Your task to perform on an android device: Open sound settings Image 0: 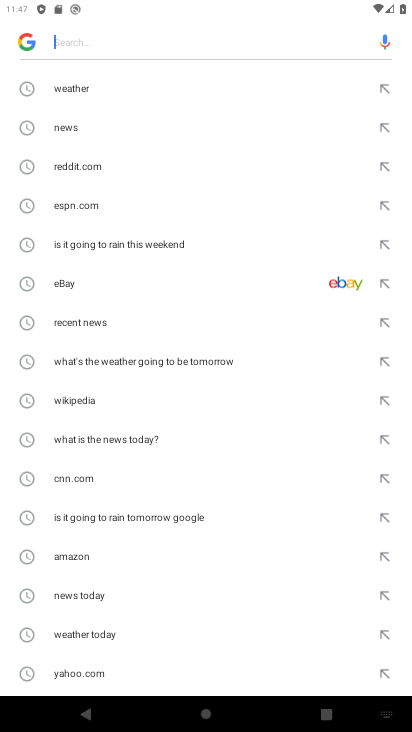
Step 0: press home button
Your task to perform on an android device: Open sound settings Image 1: 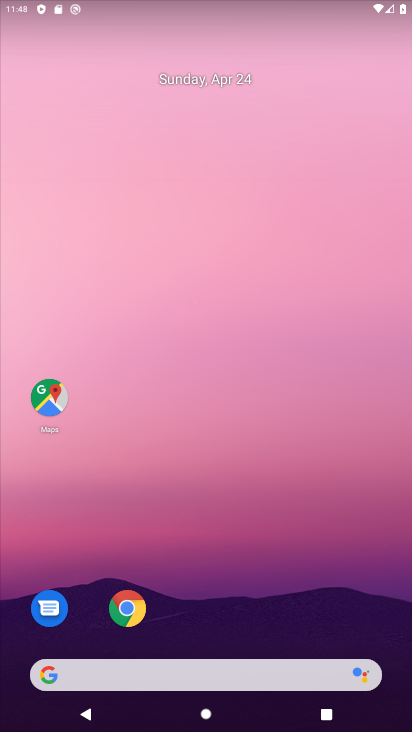
Step 1: drag from (234, 665) to (233, 66)
Your task to perform on an android device: Open sound settings Image 2: 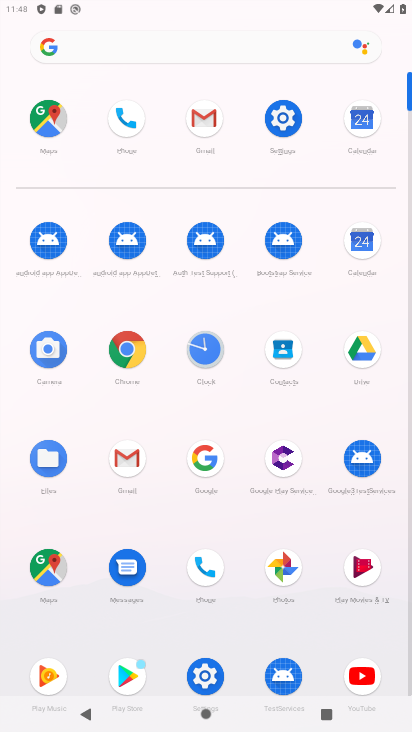
Step 2: click (275, 121)
Your task to perform on an android device: Open sound settings Image 3: 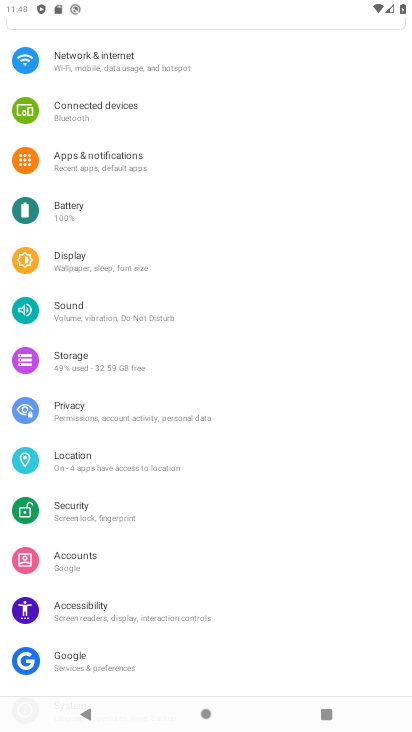
Step 3: click (82, 306)
Your task to perform on an android device: Open sound settings Image 4: 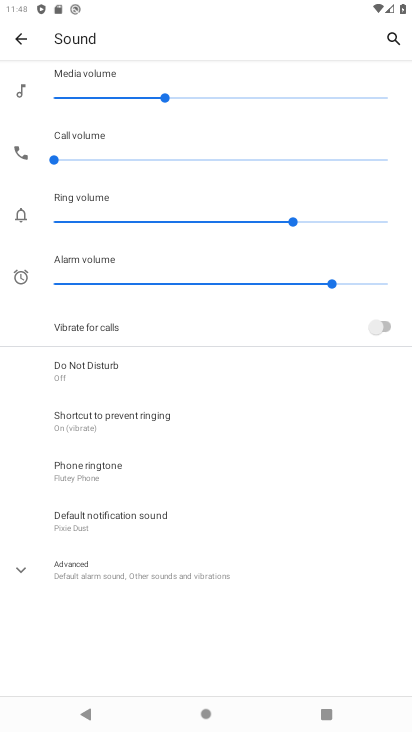
Step 4: task complete